Your task to perform on an android device: Go to Android settings Image 0: 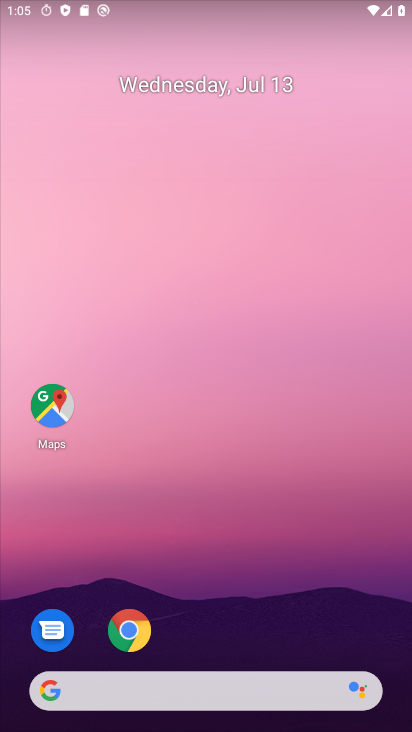
Step 0: drag from (350, 402) to (343, 83)
Your task to perform on an android device: Go to Android settings Image 1: 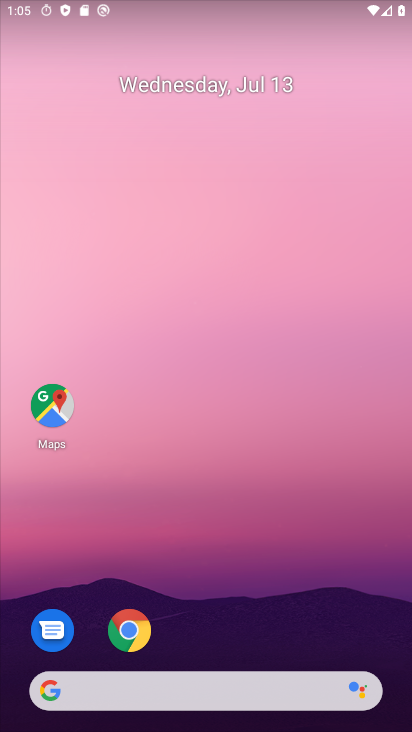
Step 1: drag from (246, 613) to (218, 188)
Your task to perform on an android device: Go to Android settings Image 2: 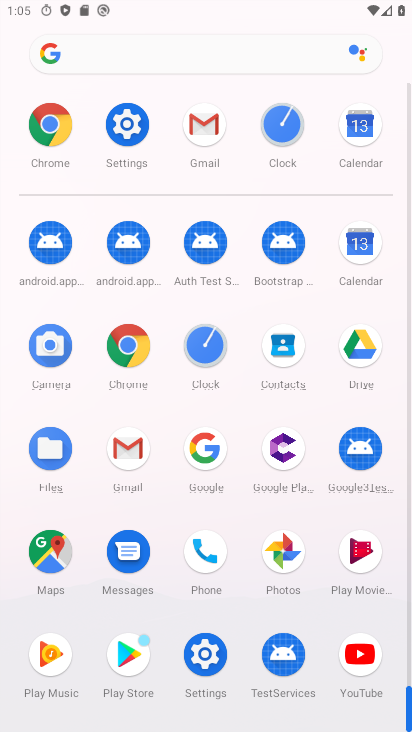
Step 2: click (128, 123)
Your task to perform on an android device: Go to Android settings Image 3: 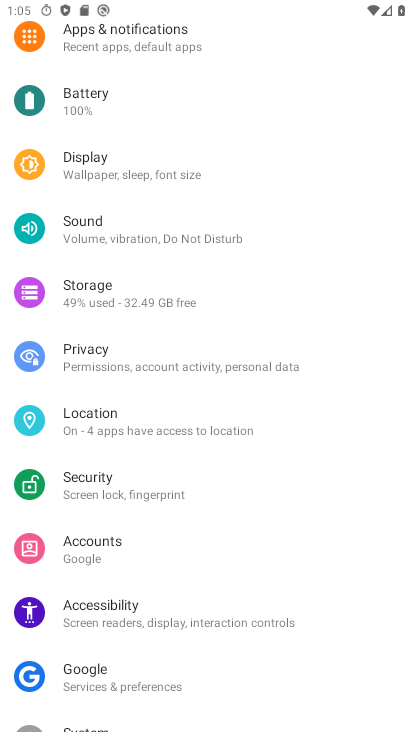
Step 3: task complete